Your task to perform on an android device: Open ESPN.com Image 0: 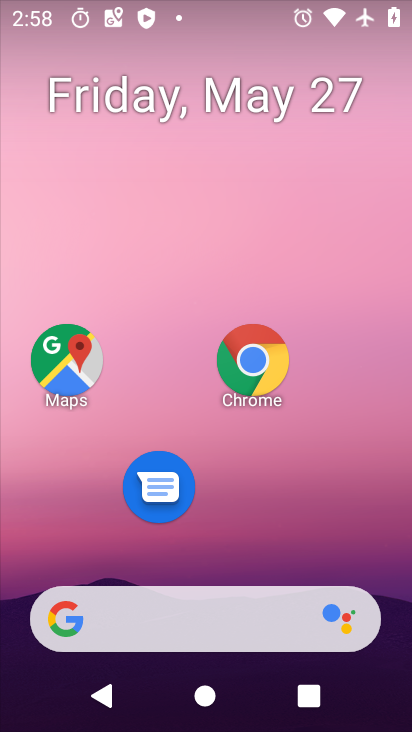
Step 0: drag from (254, 507) to (297, 33)
Your task to perform on an android device: Open ESPN.com Image 1: 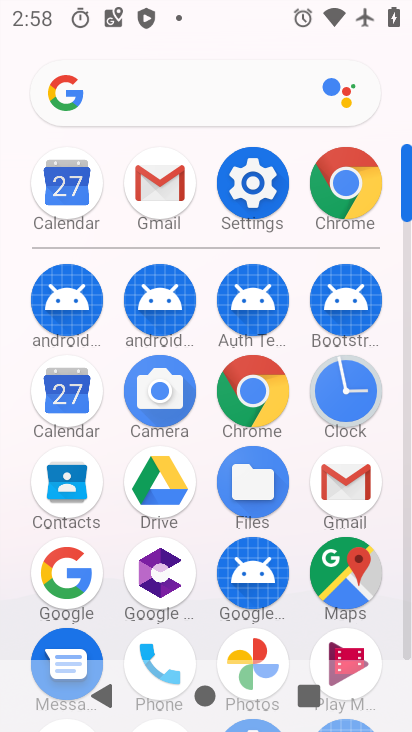
Step 1: click (70, 569)
Your task to perform on an android device: Open ESPN.com Image 2: 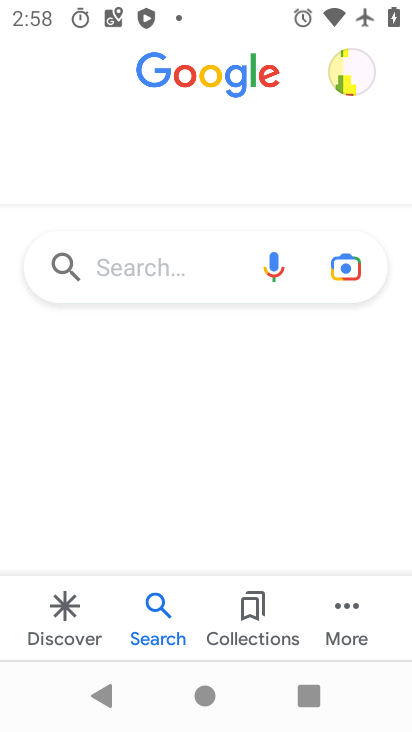
Step 2: click (163, 272)
Your task to perform on an android device: Open ESPN.com Image 3: 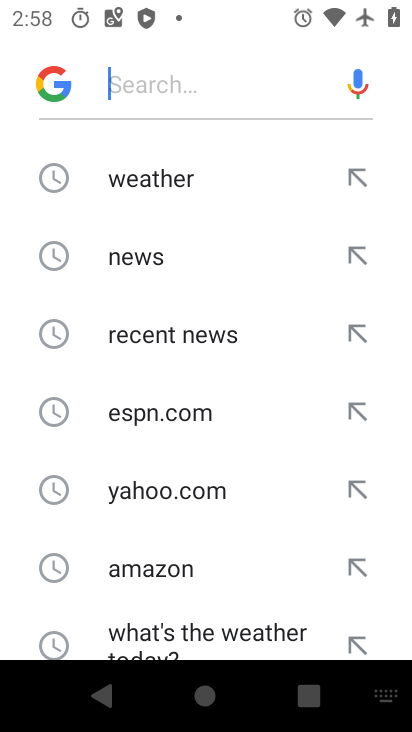
Step 3: drag from (205, 494) to (215, 233)
Your task to perform on an android device: Open ESPN.com Image 4: 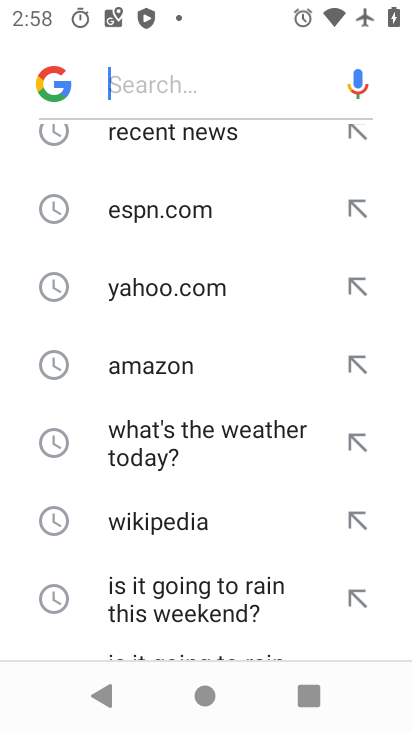
Step 4: click (185, 213)
Your task to perform on an android device: Open ESPN.com Image 5: 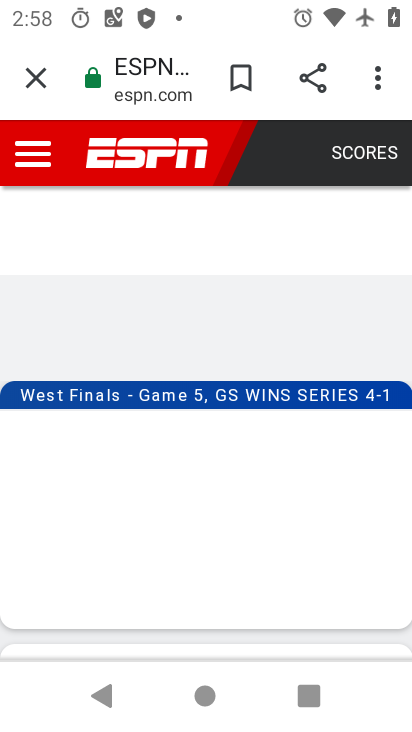
Step 5: task complete